Your task to perform on an android device: What's on my calendar today? Image 0: 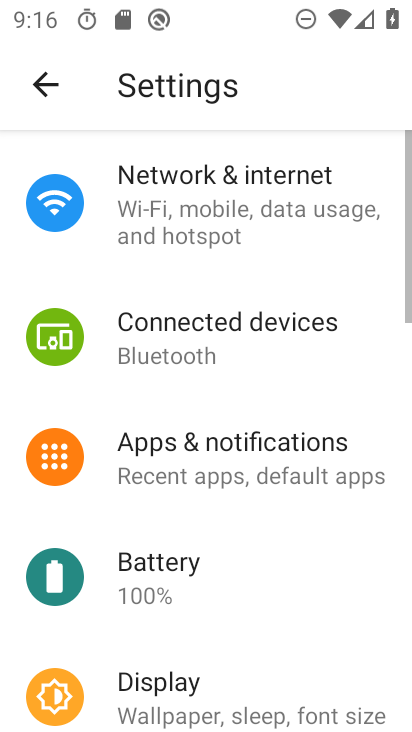
Step 0: press home button
Your task to perform on an android device: What's on my calendar today? Image 1: 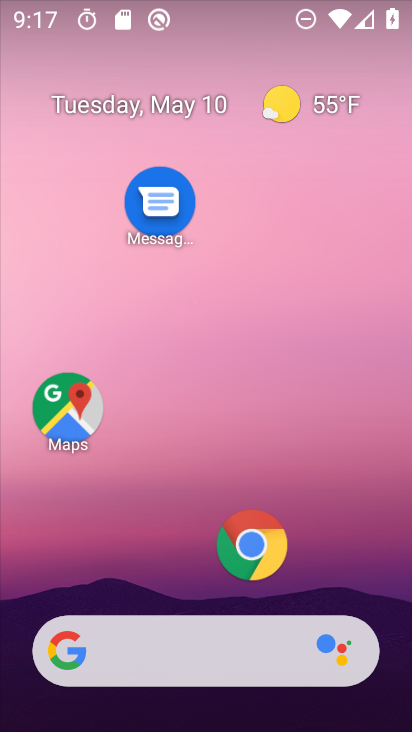
Step 1: drag from (186, 572) to (225, 91)
Your task to perform on an android device: What's on my calendar today? Image 2: 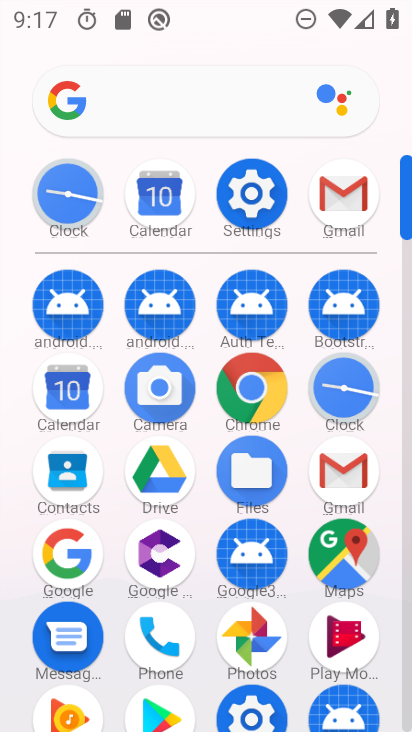
Step 2: click (63, 401)
Your task to perform on an android device: What's on my calendar today? Image 3: 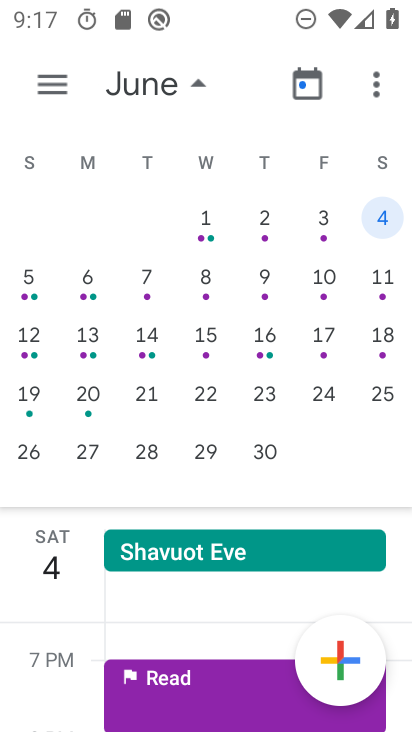
Step 3: drag from (51, 305) to (364, 290)
Your task to perform on an android device: What's on my calendar today? Image 4: 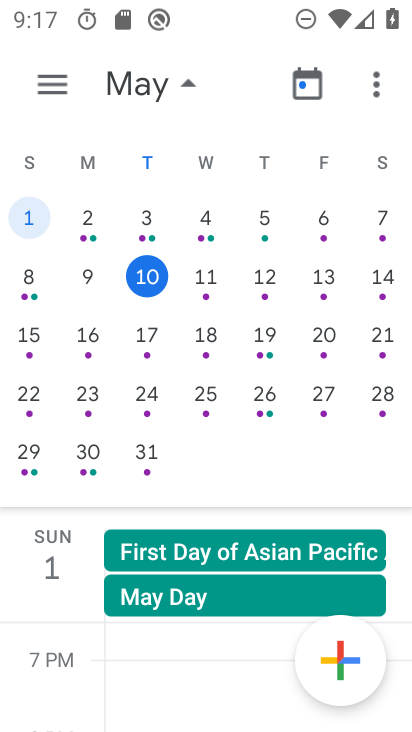
Step 4: click (133, 275)
Your task to perform on an android device: What's on my calendar today? Image 5: 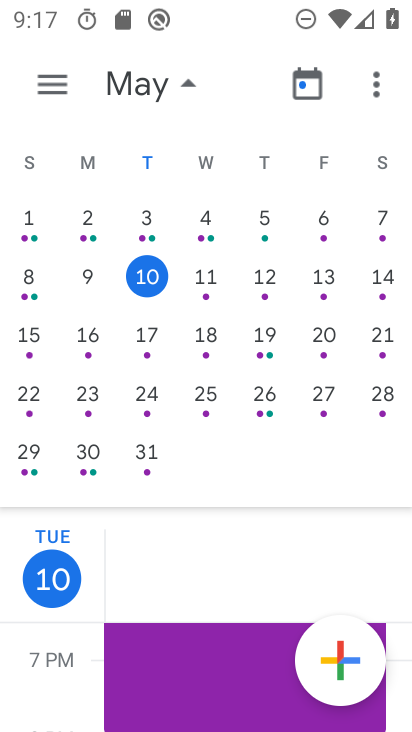
Step 5: task complete